Your task to perform on an android device: Go to eBay Image 0: 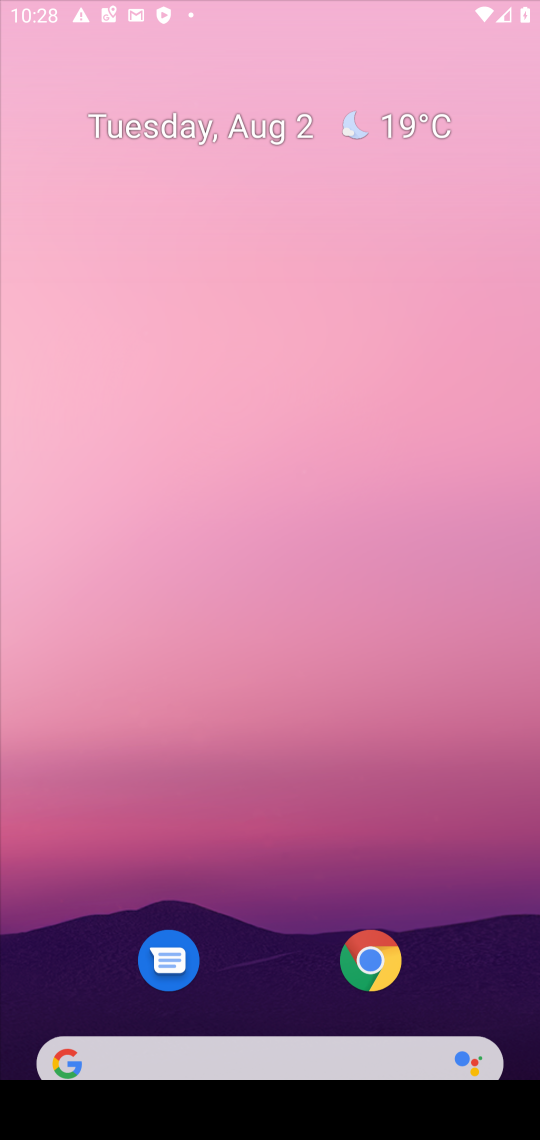
Step 0: press home button
Your task to perform on an android device: Go to eBay Image 1: 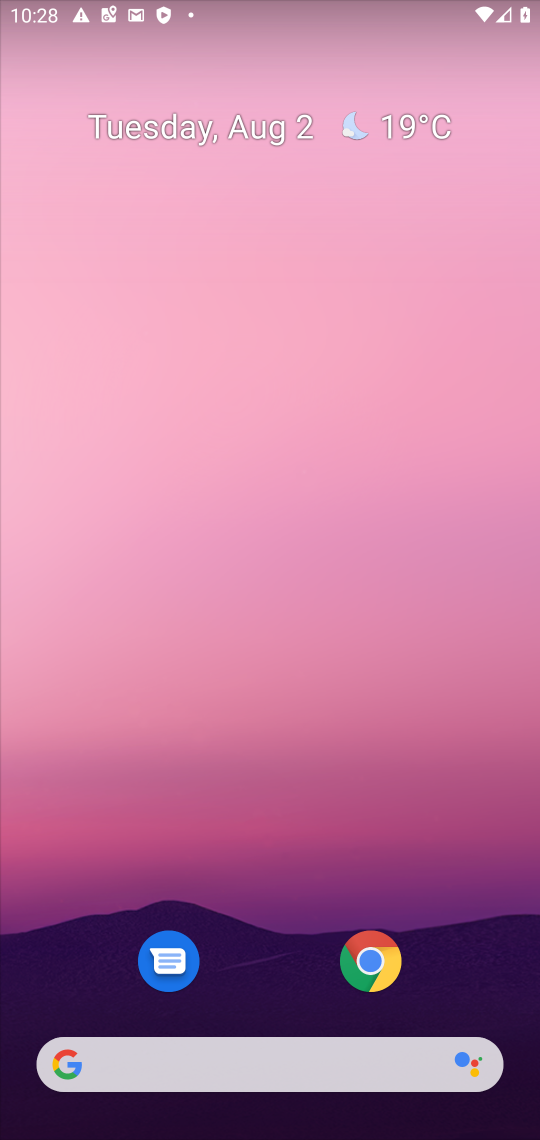
Step 1: drag from (386, 284) to (188, 934)
Your task to perform on an android device: Go to eBay Image 2: 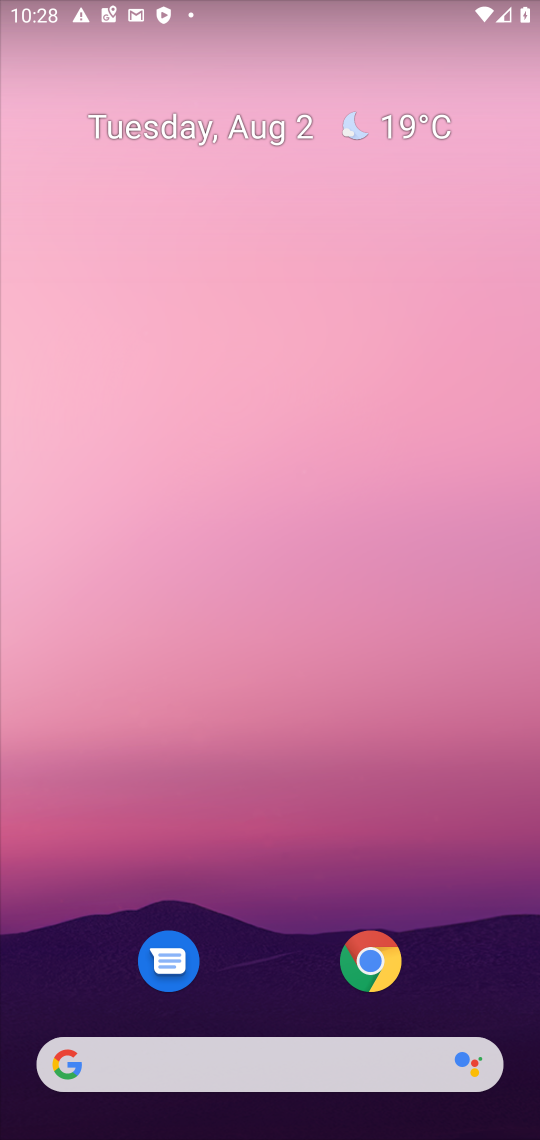
Step 2: drag from (486, 9) to (233, 1138)
Your task to perform on an android device: Go to eBay Image 3: 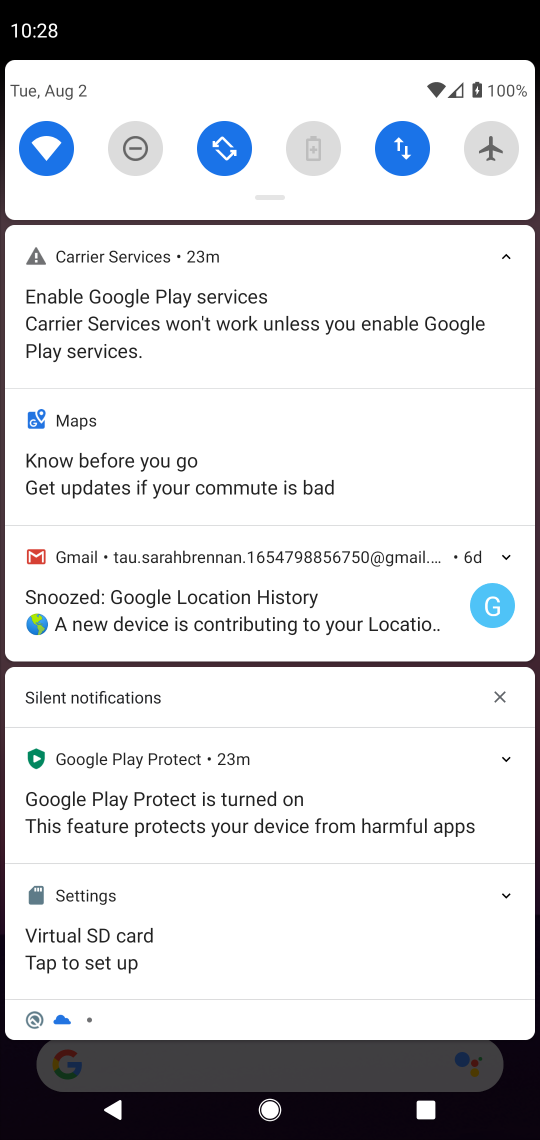
Step 3: press home button
Your task to perform on an android device: Go to eBay Image 4: 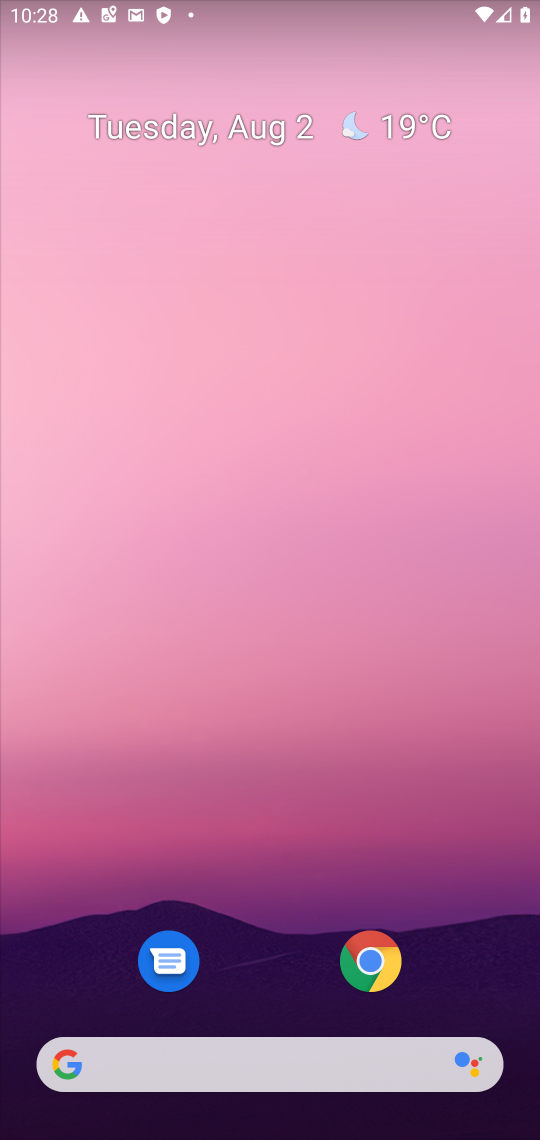
Step 4: drag from (300, 725) to (449, 6)
Your task to perform on an android device: Go to eBay Image 5: 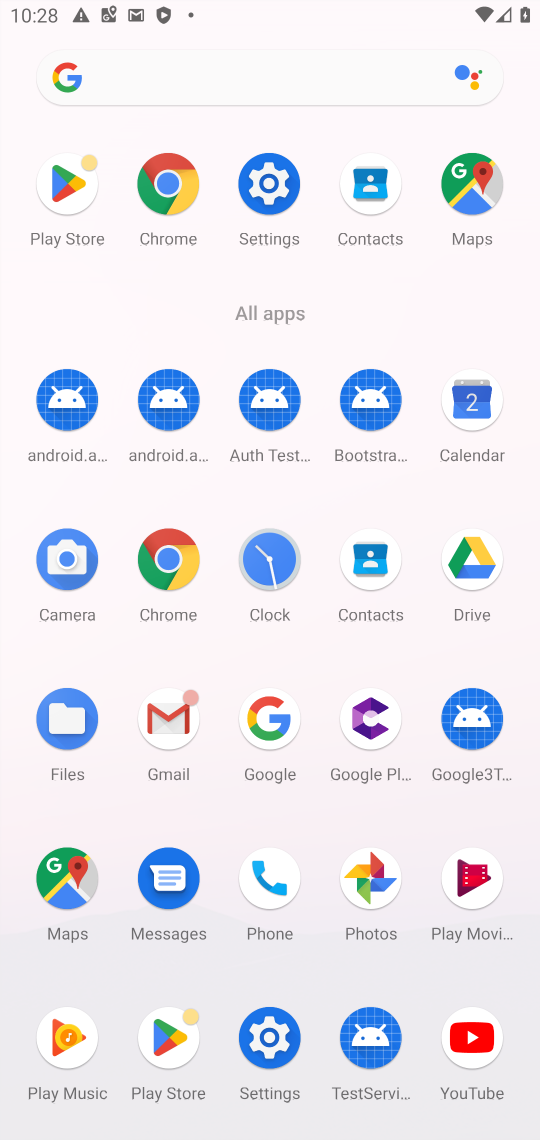
Step 5: click (187, 214)
Your task to perform on an android device: Go to eBay Image 6: 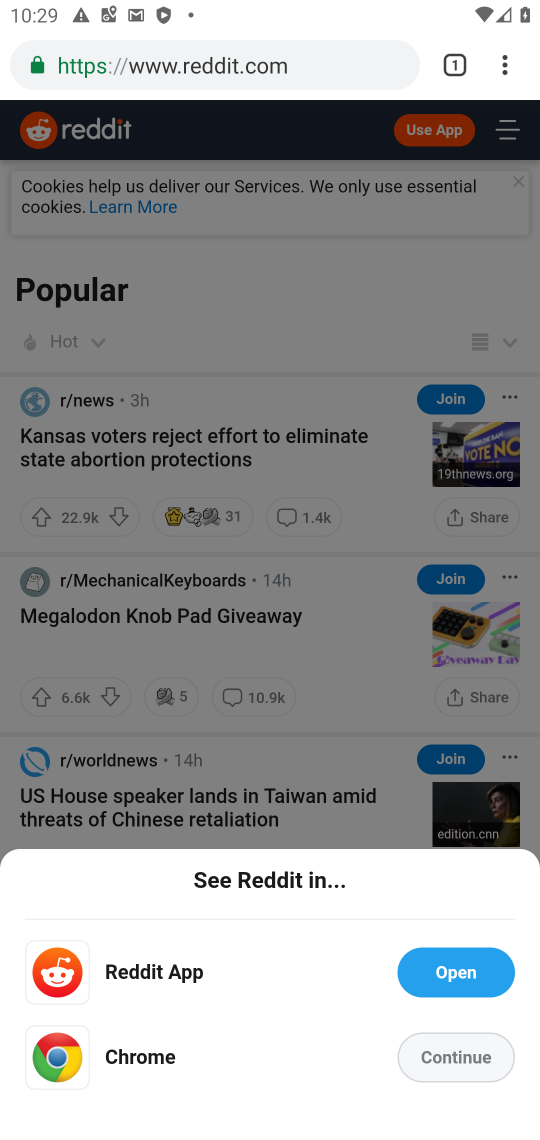
Step 6: click (153, 56)
Your task to perform on an android device: Go to eBay Image 7: 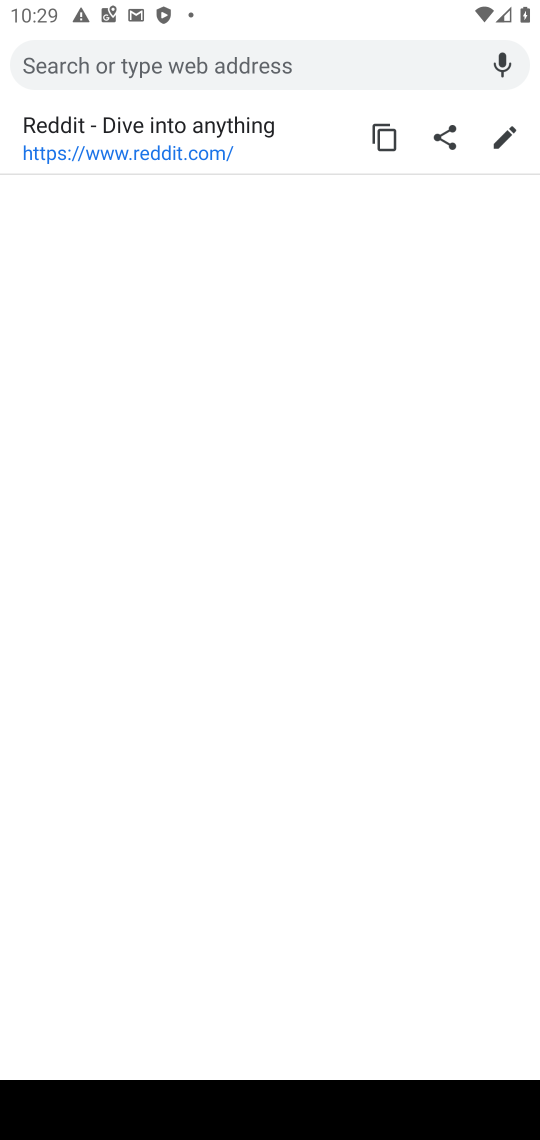
Step 7: type "eBay"
Your task to perform on an android device: Go to eBay Image 8: 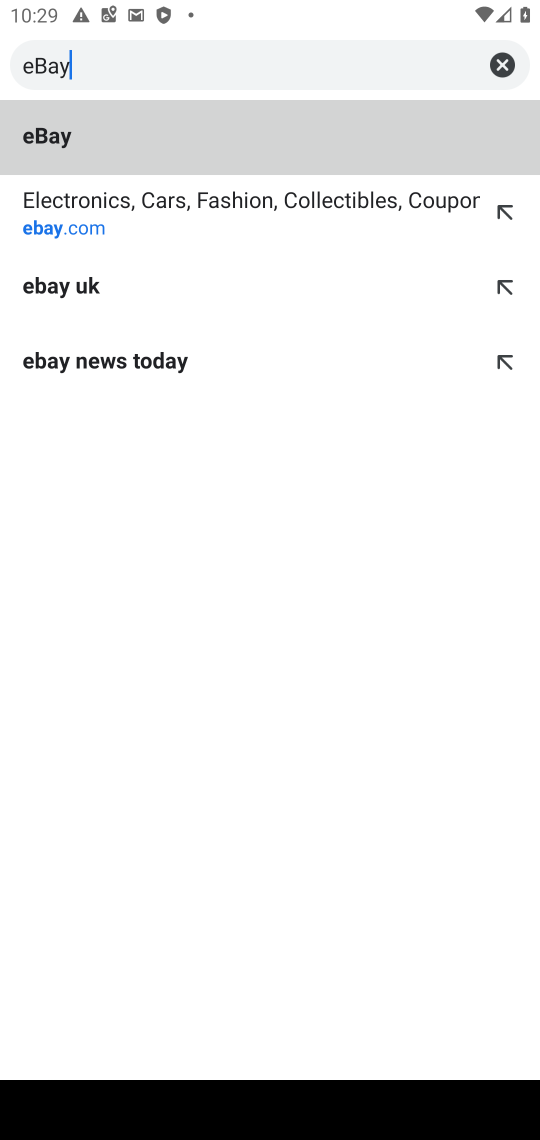
Step 8: type ""
Your task to perform on an android device: Go to eBay Image 9: 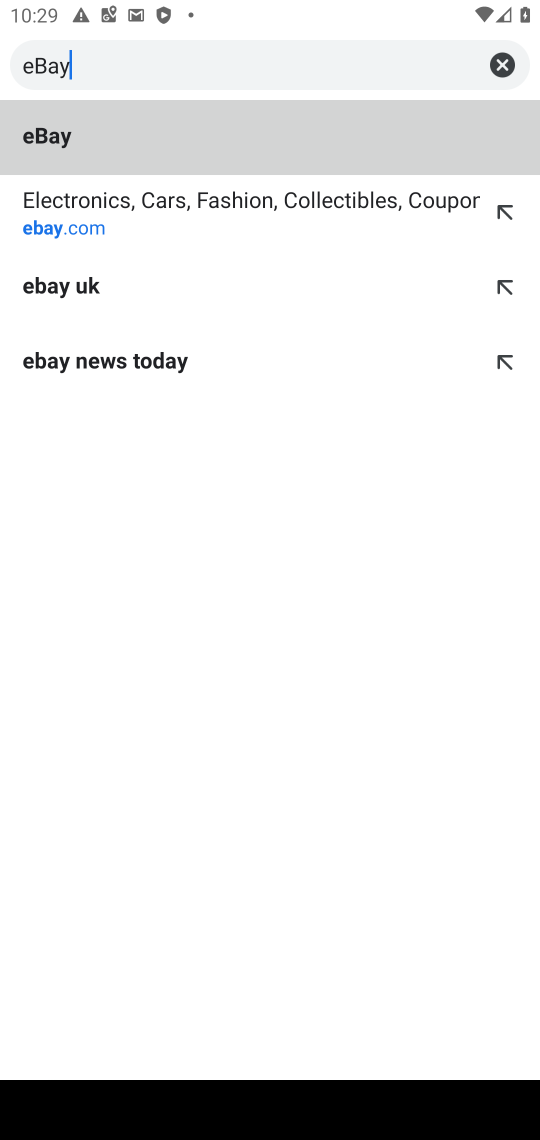
Step 9: click (80, 223)
Your task to perform on an android device: Go to eBay Image 10: 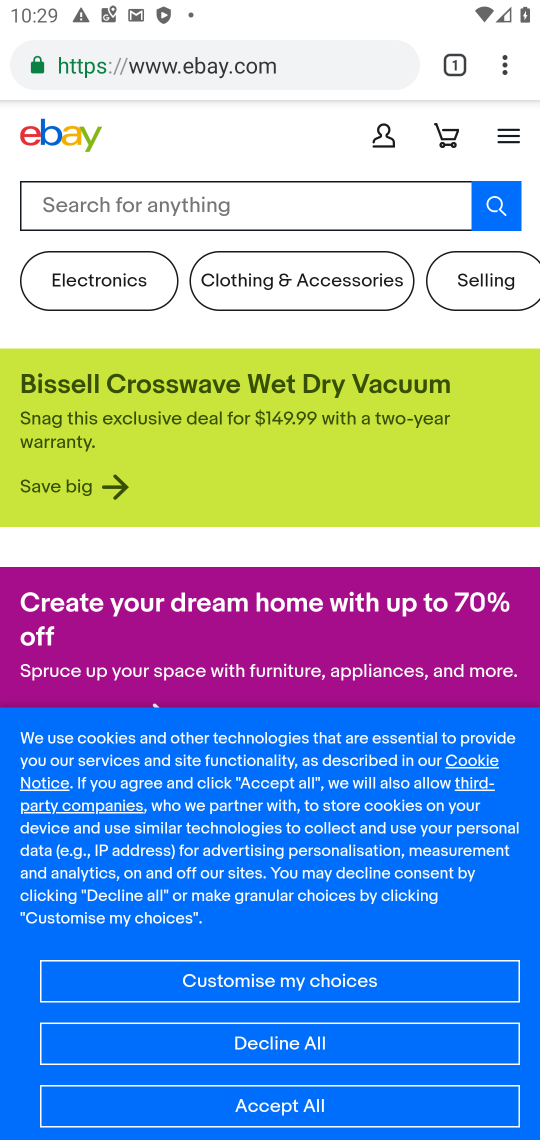
Step 10: task complete